Your task to perform on an android device: Open Google Chrome and open the bookmarks view Image 0: 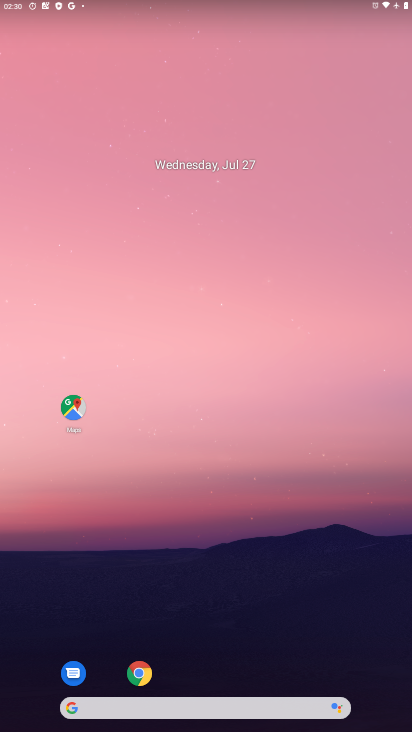
Step 0: click (138, 674)
Your task to perform on an android device: Open Google Chrome and open the bookmarks view Image 1: 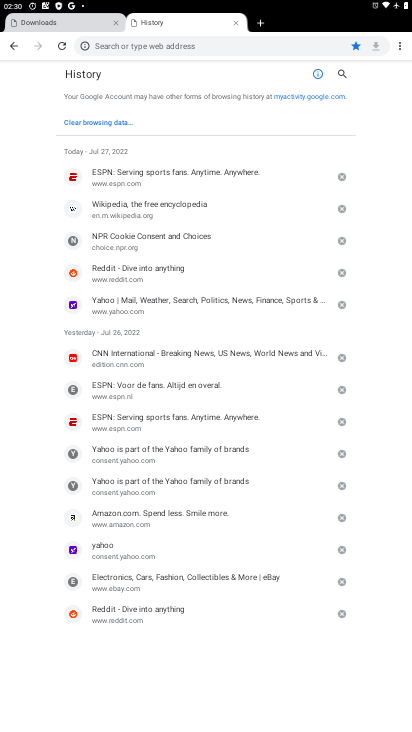
Step 1: task complete